Your task to perform on an android device: turn on notifications settings in the gmail app Image 0: 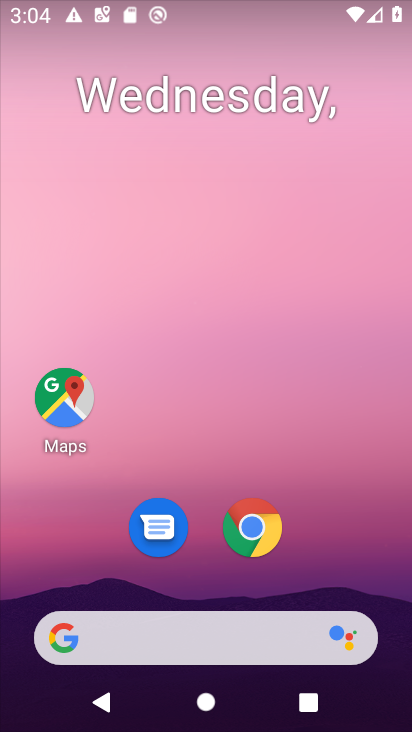
Step 0: drag from (327, 473) to (302, 151)
Your task to perform on an android device: turn on notifications settings in the gmail app Image 1: 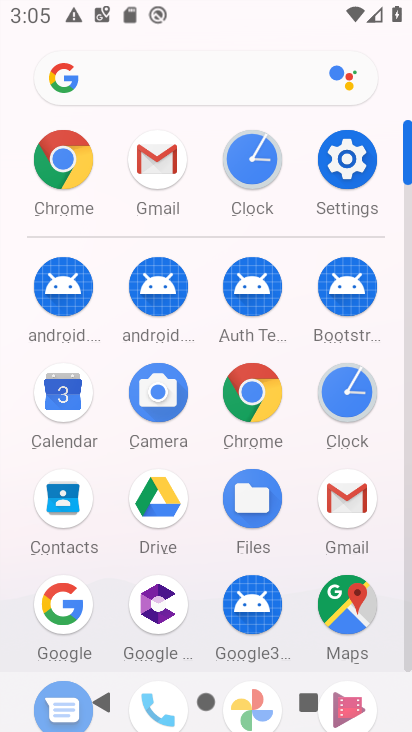
Step 1: click (350, 505)
Your task to perform on an android device: turn on notifications settings in the gmail app Image 2: 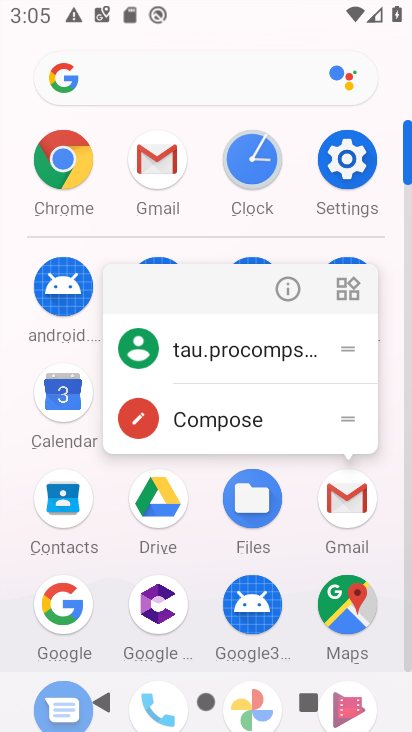
Step 2: click (347, 498)
Your task to perform on an android device: turn on notifications settings in the gmail app Image 3: 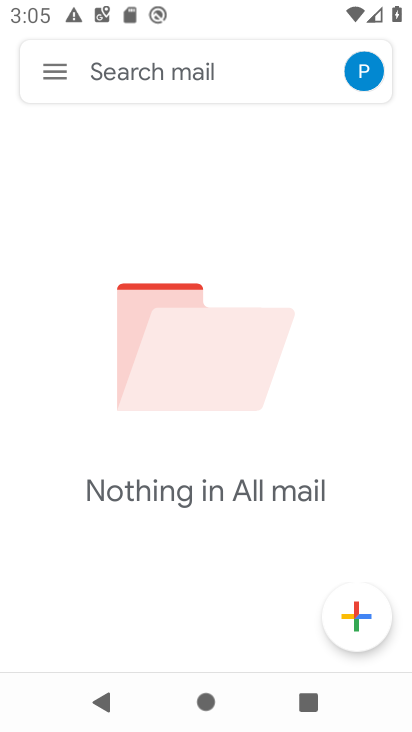
Step 3: click (53, 71)
Your task to perform on an android device: turn on notifications settings in the gmail app Image 4: 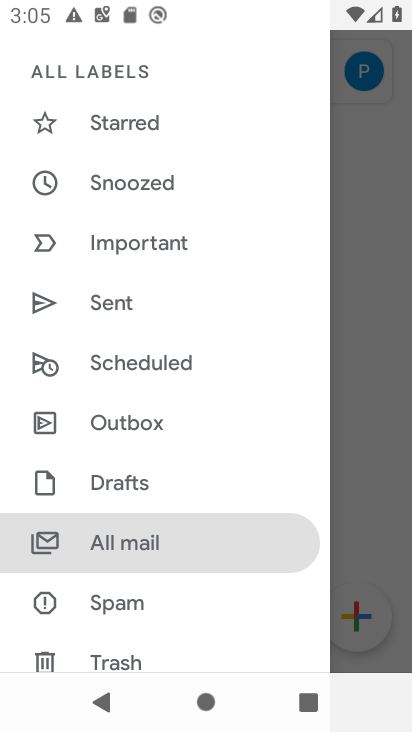
Step 4: drag from (294, 611) to (280, 261)
Your task to perform on an android device: turn on notifications settings in the gmail app Image 5: 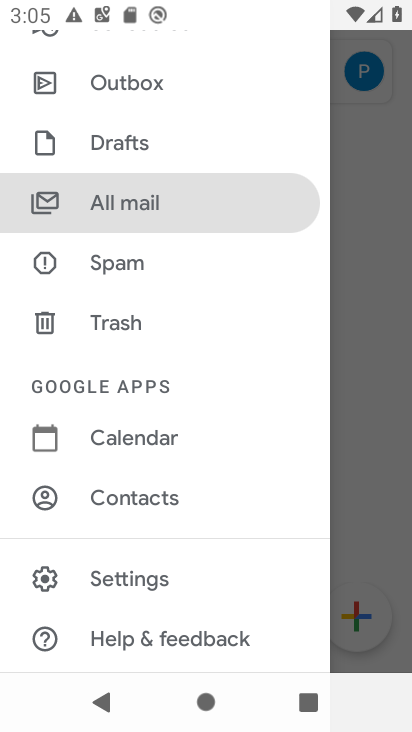
Step 5: click (98, 586)
Your task to perform on an android device: turn on notifications settings in the gmail app Image 6: 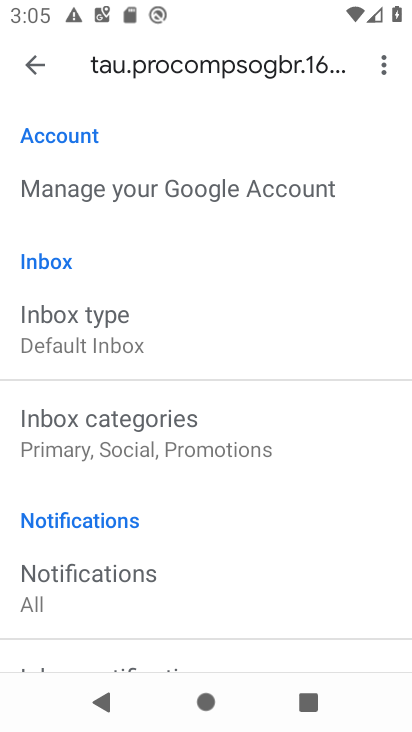
Step 6: drag from (279, 569) to (334, 280)
Your task to perform on an android device: turn on notifications settings in the gmail app Image 7: 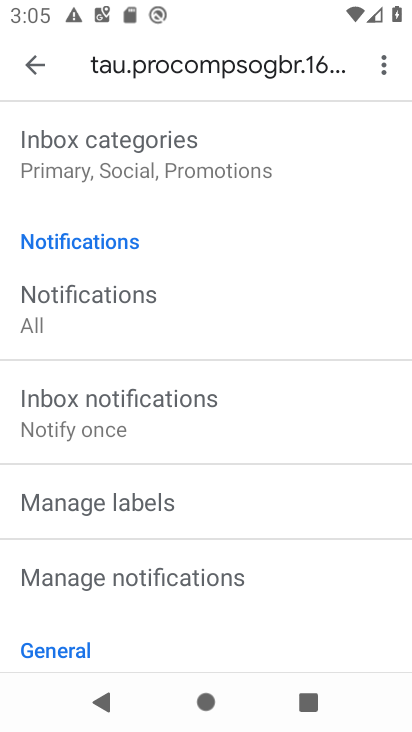
Step 7: click (93, 579)
Your task to perform on an android device: turn on notifications settings in the gmail app Image 8: 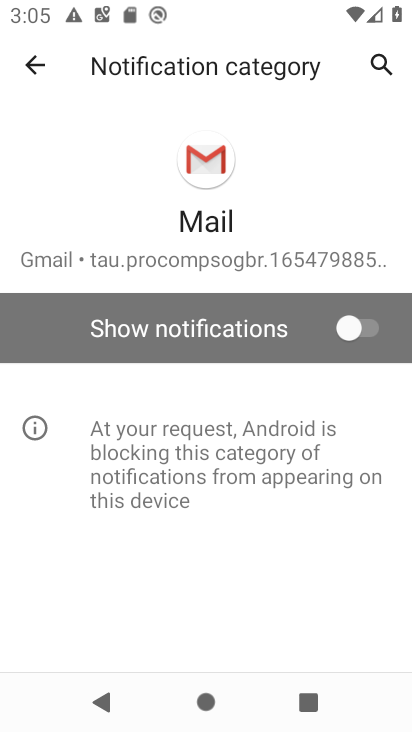
Step 8: click (326, 318)
Your task to perform on an android device: turn on notifications settings in the gmail app Image 9: 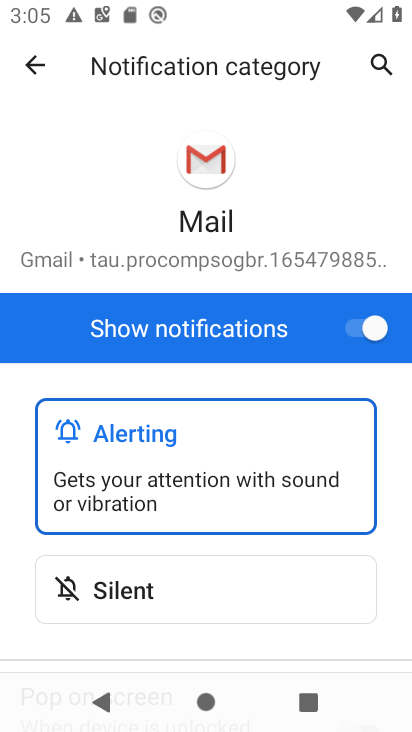
Step 9: task complete